Your task to perform on an android device: turn notification dots on Image 0: 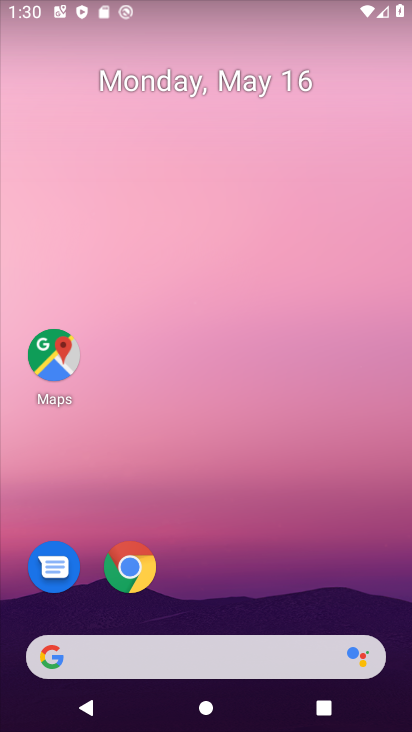
Step 0: drag from (274, 613) to (315, 173)
Your task to perform on an android device: turn notification dots on Image 1: 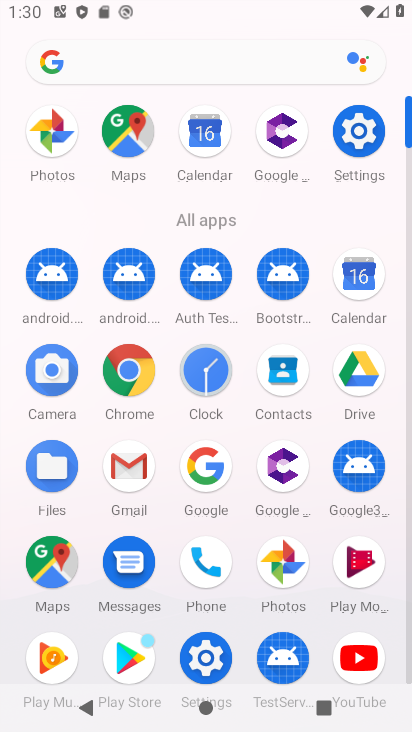
Step 1: click (363, 117)
Your task to perform on an android device: turn notification dots on Image 2: 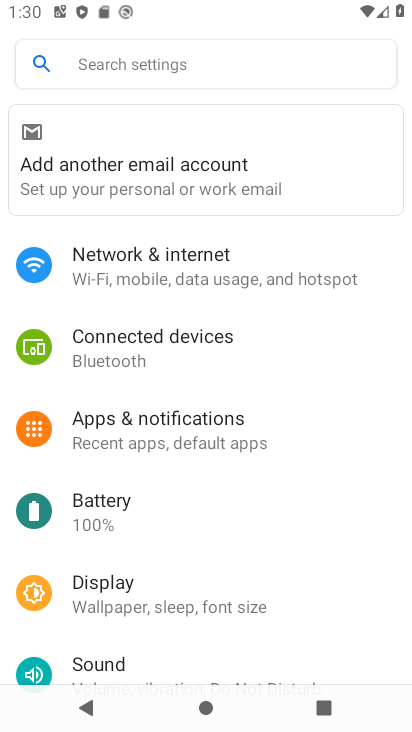
Step 2: click (254, 421)
Your task to perform on an android device: turn notification dots on Image 3: 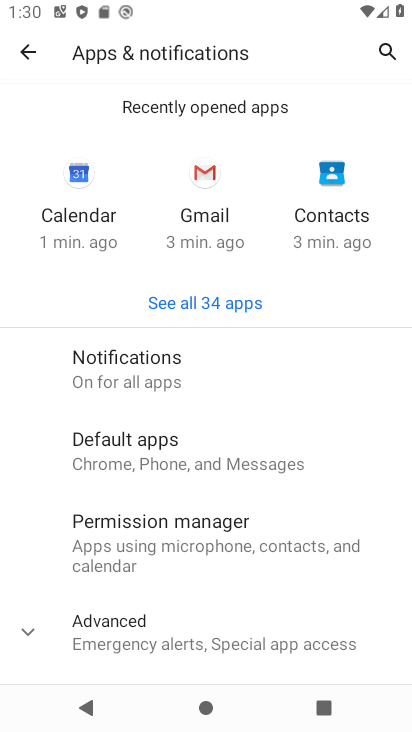
Step 3: click (265, 372)
Your task to perform on an android device: turn notification dots on Image 4: 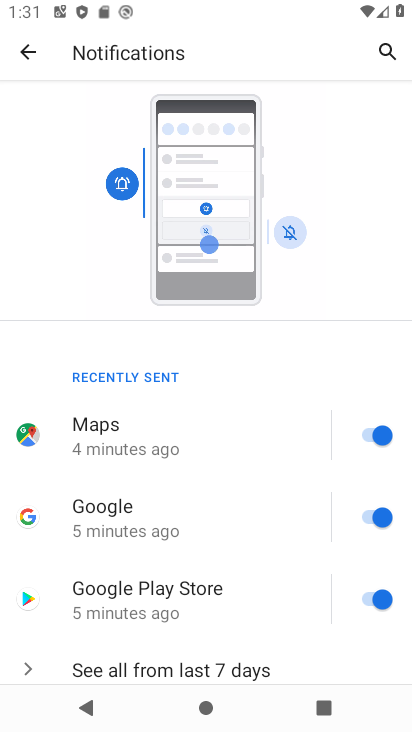
Step 4: drag from (254, 638) to (283, 252)
Your task to perform on an android device: turn notification dots on Image 5: 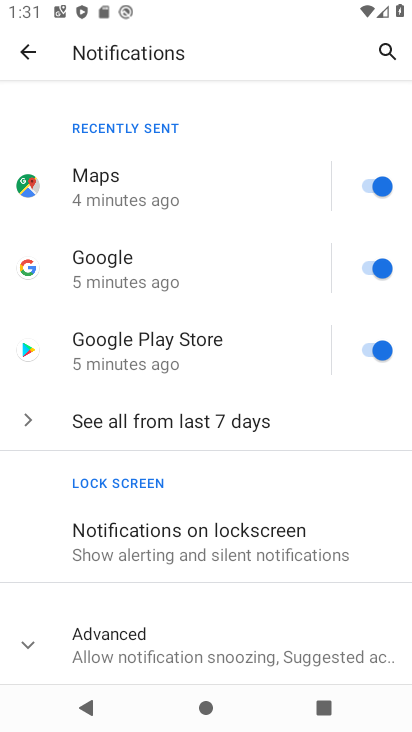
Step 5: click (269, 646)
Your task to perform on an android device: turn notification dots on Image 6: 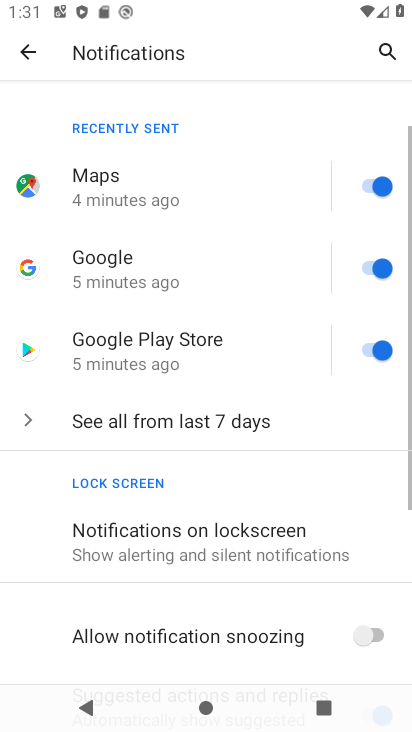
Step 6: task complete